Your task to perform on an android device: toggle show notifications on the lock screen Image 0: 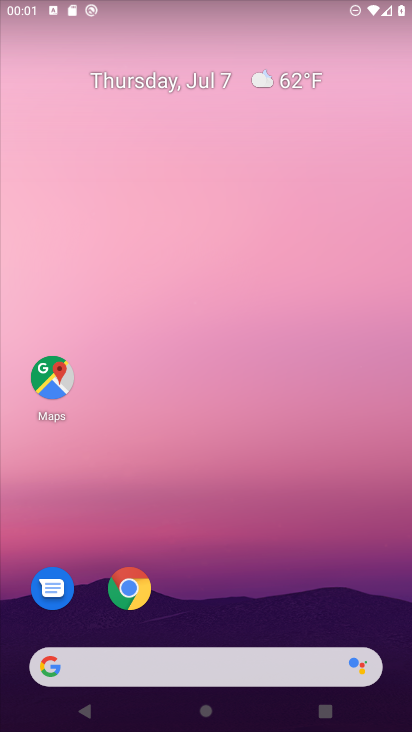
Step 0: drag from (330, 615) to (325, 84)
Your task to perform on an android device: toggle show notifications on the lock screen Image 1: 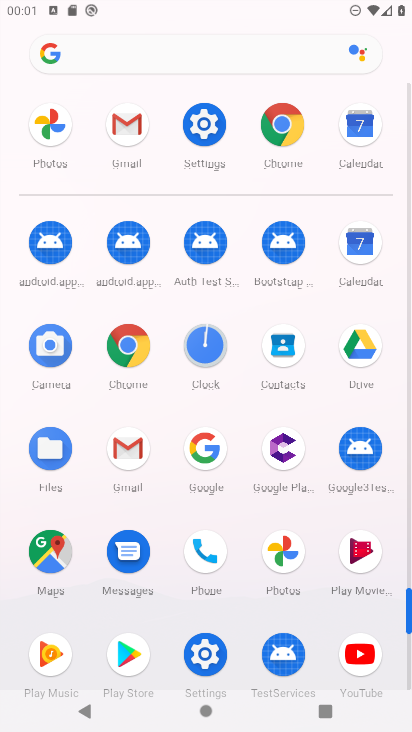
Step 1: click (204, 655)
Your task to perform on an android device: toggle show notifications on the lock screen Image 2: 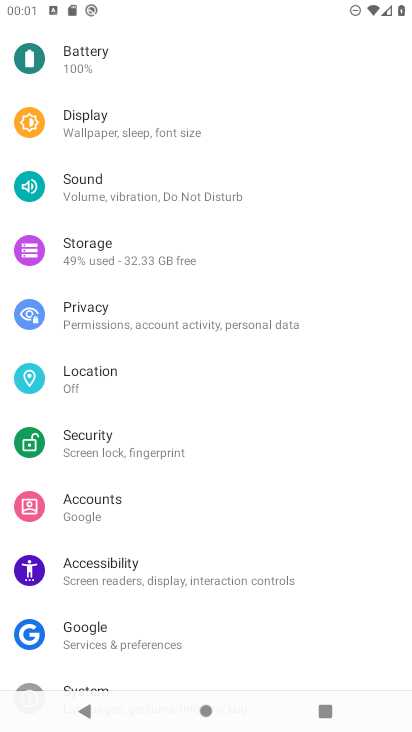
Step 2: drag from (256, 138) to (282, 406)
Your task to perform on an android device: toggle show notifications on the lock screen Image 3: 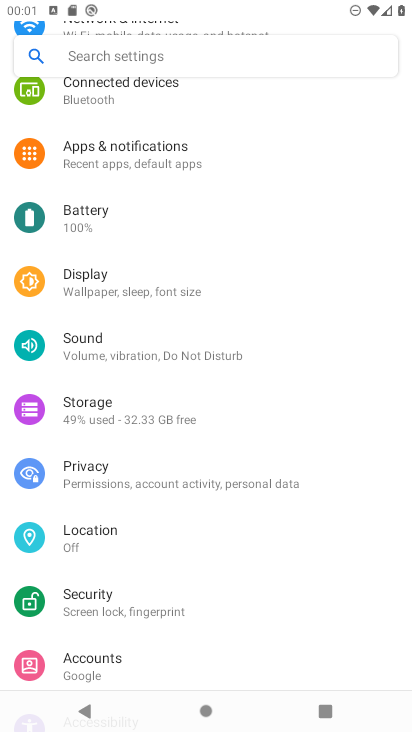
Step 3: click (99, 144)
Your task to perform on an android device: toggle show notifications on the lock screen Image 4: 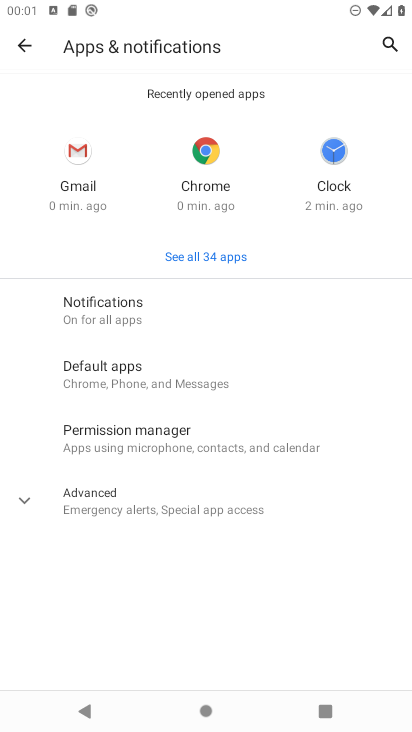
Step 4: click (96, 304)
Your task to perform on an android device: toggle show notifications on the lock screen Image 5: 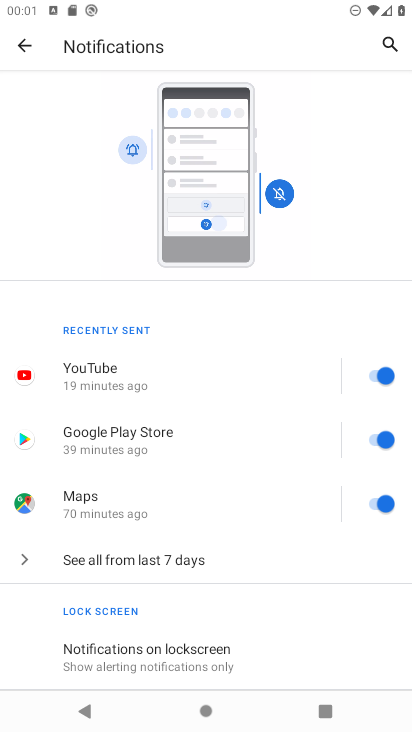
Step 5: drag from (305, 589) to (314, 254)
Your task to perform on an android device: toggle show notifications on the lock screen Image 6: 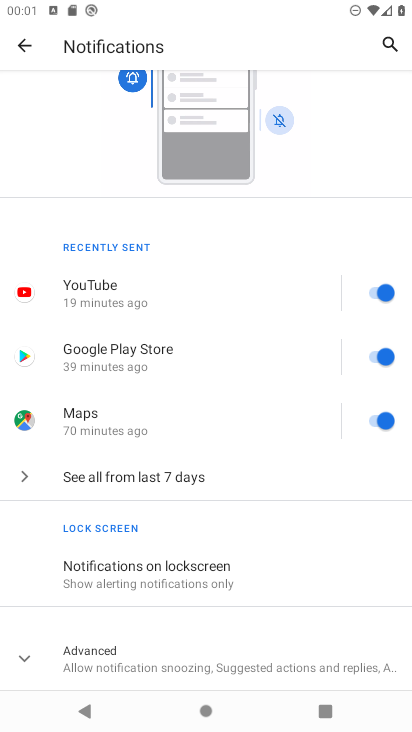
Step 6: click (118, 575)
Your task to perform on an android device: toggle show notifications on the lock screen Image 7: 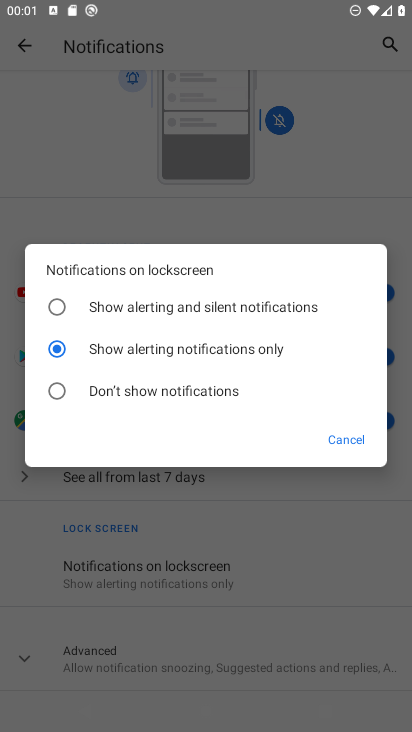
Step 7: click (64, 307)
Your task to perform on an android device: toggle show notifications on the lock screen Image 8: 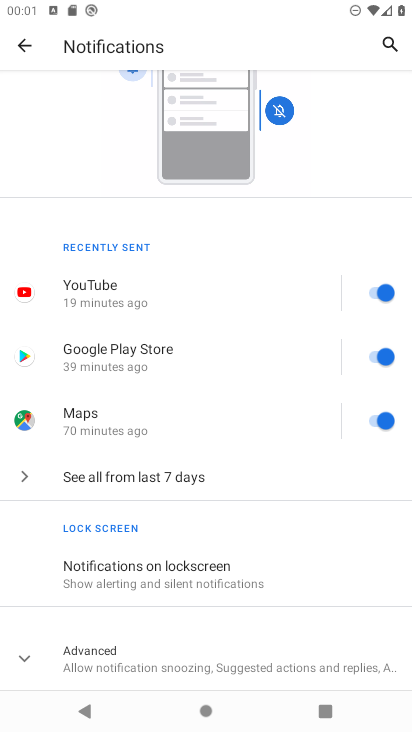
Step 8: task complete